Your task to perform on an android device: Open calendar and show me the first week of next month Image 0: 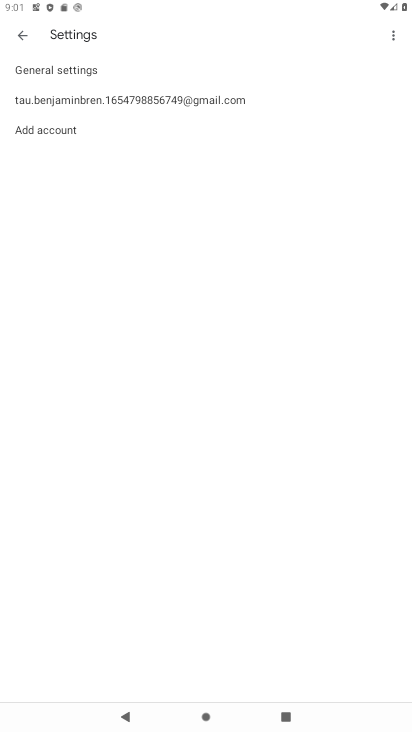
Step 0: press home button
Your task to perform on an android device: Open calendar and show me the first week of next month Image 1: 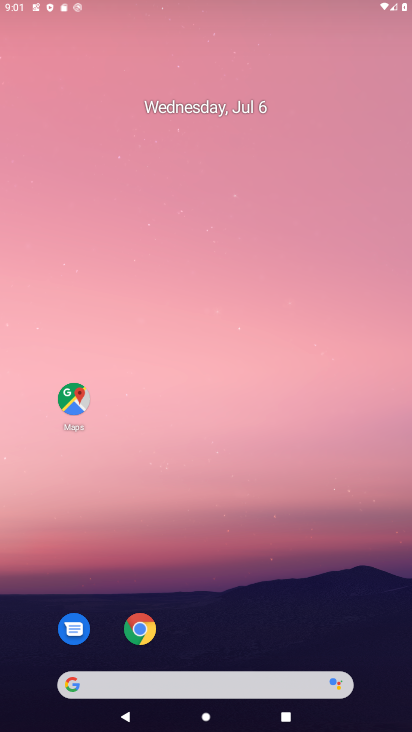
Step 1: drag from (251, 597) to (214, 90)
Your task to perform on an android device: Open calendar and show me the first week of next month Image 2: 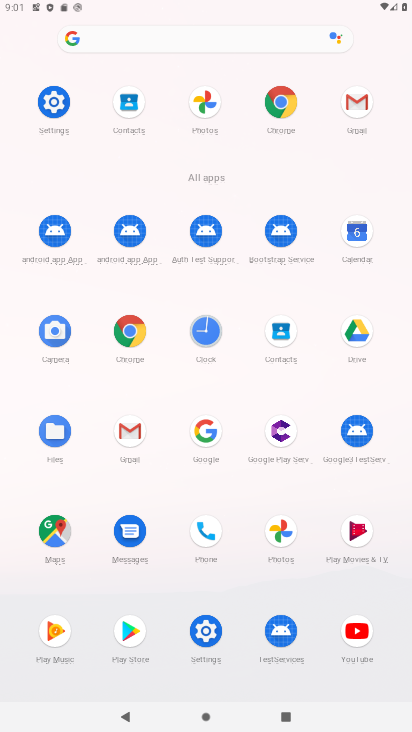
Step 2: click (361, 234)
Your task to perform on an android device: Open calendar and show me the first week of next month Image 3: 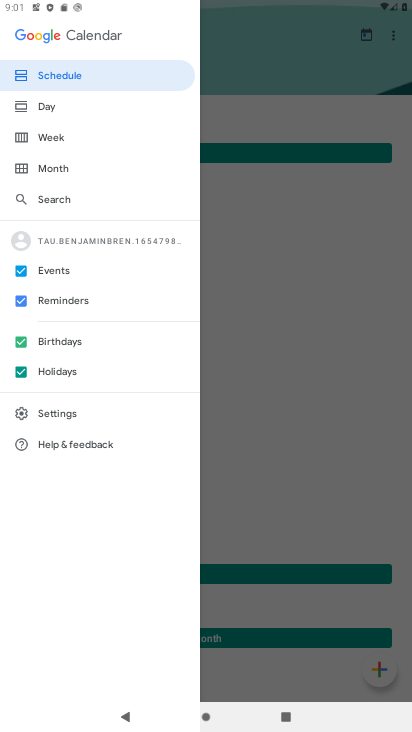
Step 3: click (77, 167)
Your task to perform on an android device: Open calendar and show me the first week of next month Image 4: 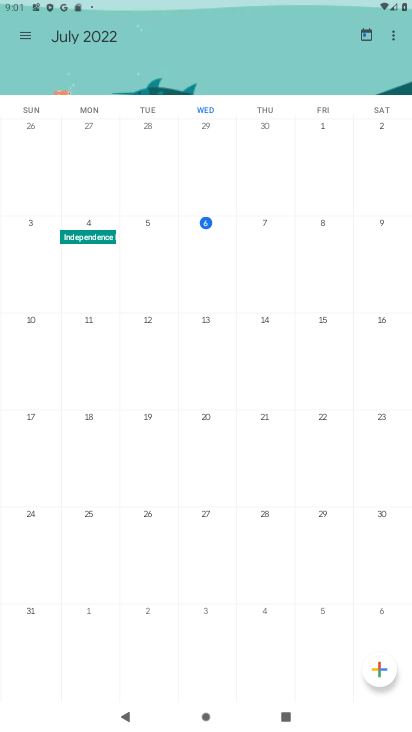
Step 4: click (257, 333)
Your task to perform on an android device: Open calendar and show me the first week of next month Image 5: 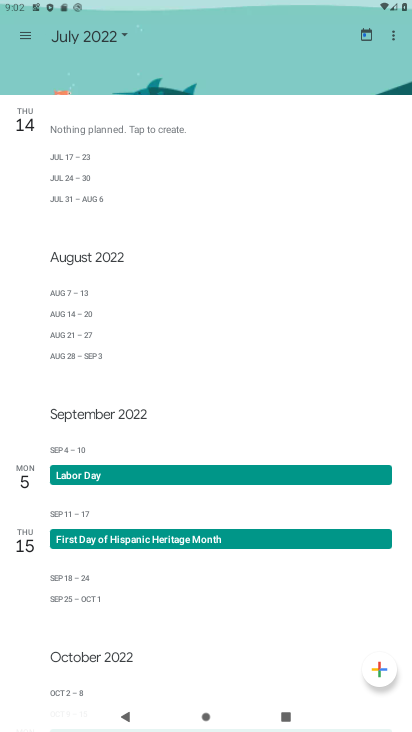
Step 5: task complete